Your task to perform on an android device: allow cookies in the chrome app Image 0: 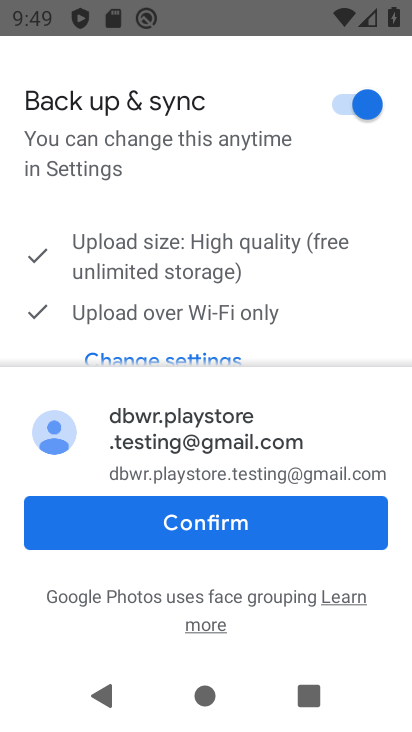
Step 0: press home button
Your task to perform on an android device: allow cookies in the chrome app Image 1: 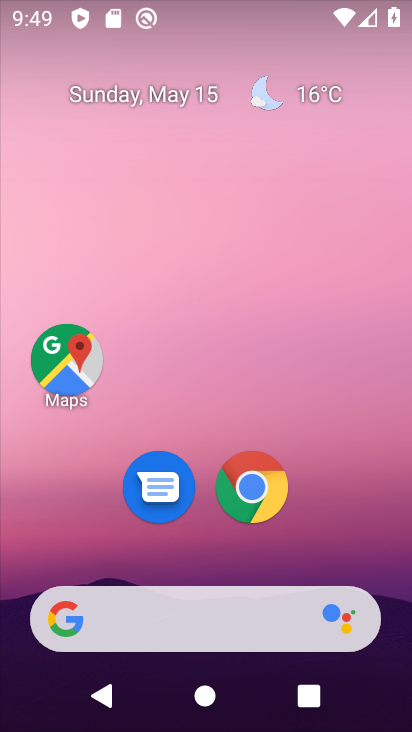
Step 1: click (257, 487)
Your task to perform on an android device: allow cookies in the chrome app Image 2: 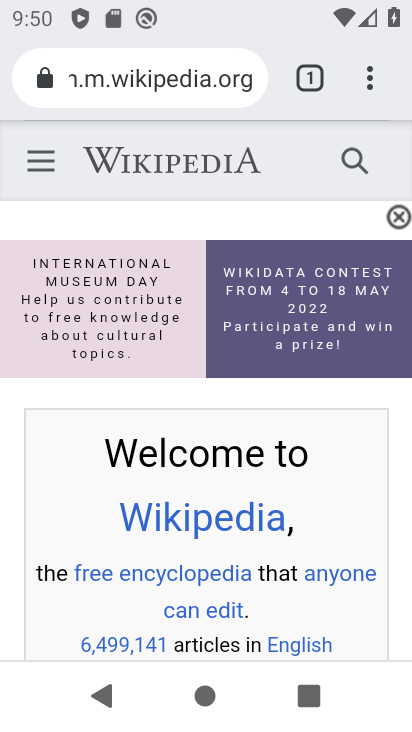
Step 2: click (373, 87)
Your task to perform on an android device: allow cookies in the chrome app Image 3: 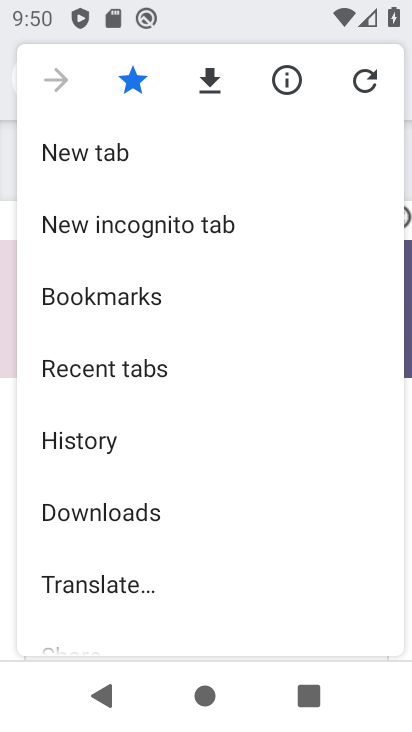
Step 3: drag from (178, 590) to (276, 183)
Your task to perform on an android device: allow cookies in the chrome app Image 4: 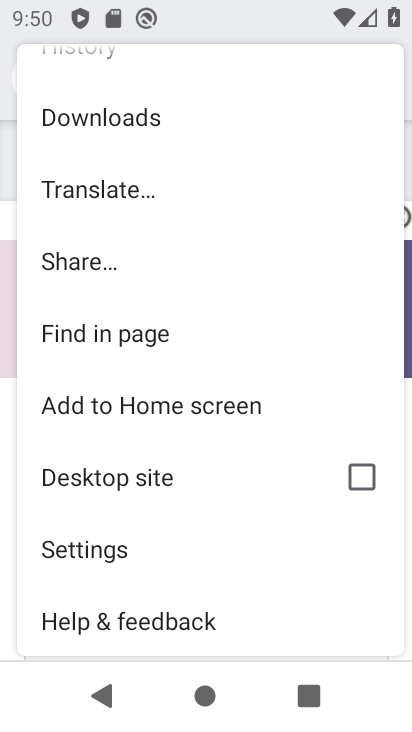
Step 4: click (110, 546)
Your task to perform on an android device: allow cookies in the chrome app Image 5: 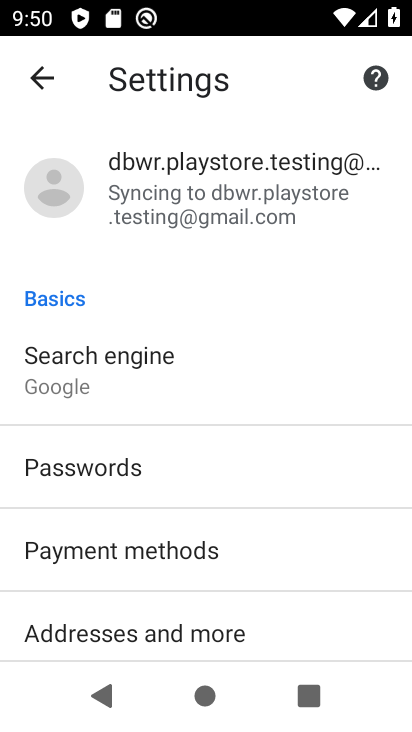
Step 5: drag from (269, 548) to (247, 273)
Your task to perform on an android device: allow cookies in the chrome app Image 6: 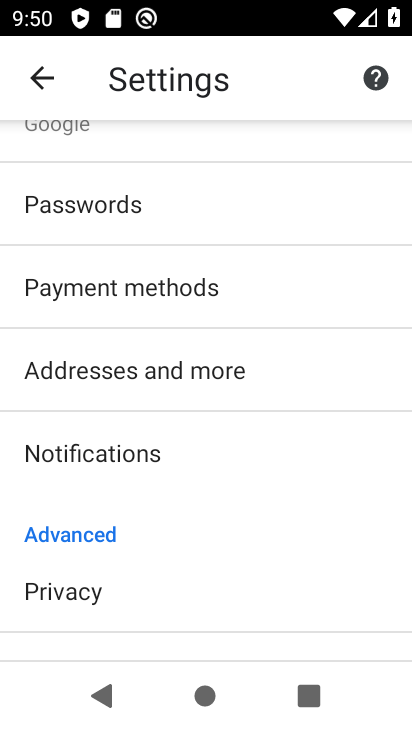
Step 6: drag from (200, 577) to (219, 301)
Your task to perform on an android device: allow cookies in the chrome app Image 7: 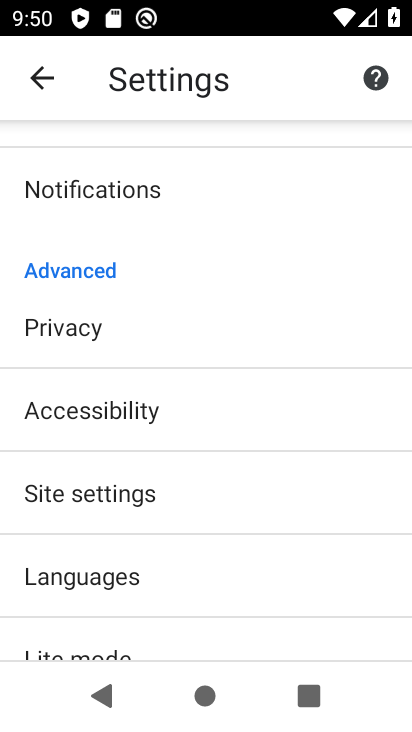
Step 7: click (116, 493)
Your task to perform on an android device: allow cookies in the chrome app Image 8: 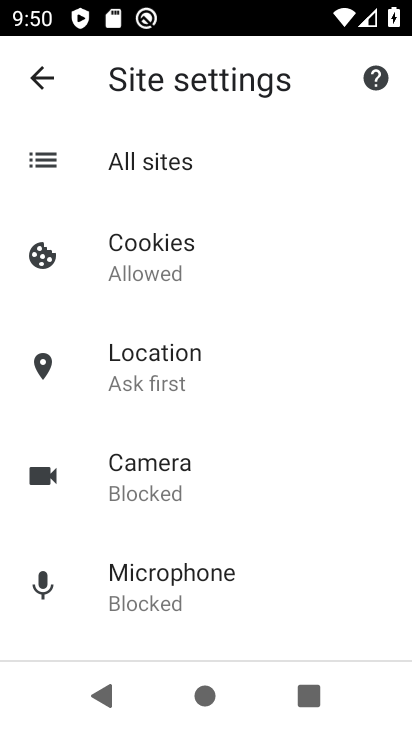
Step 8: task complete